Your task to perform on an android device: turn on sleep mode Image 0: 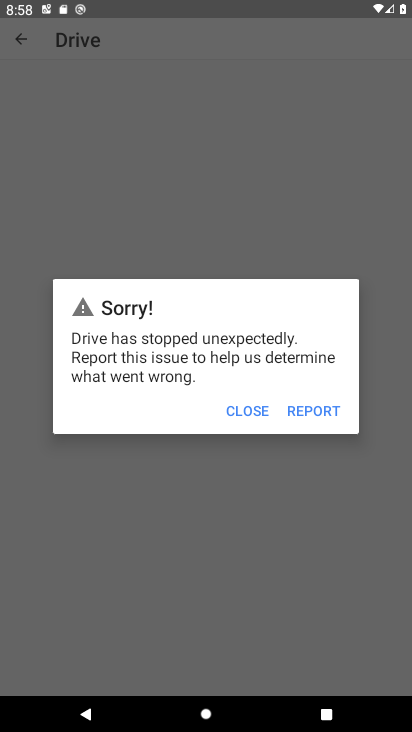
Step 0: press home button
Your task to perform on an android device: turn on sleep mode Image 1: 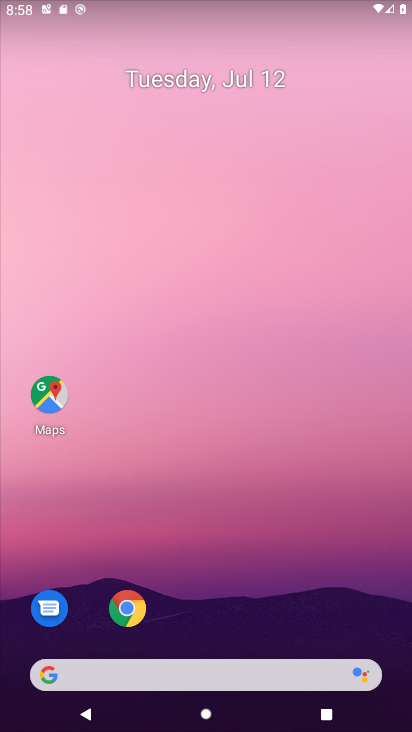
Step 1: drag from (184, 672) to (323, 14)
Your task to perform on an android device: turn on sleep mode Image 2: 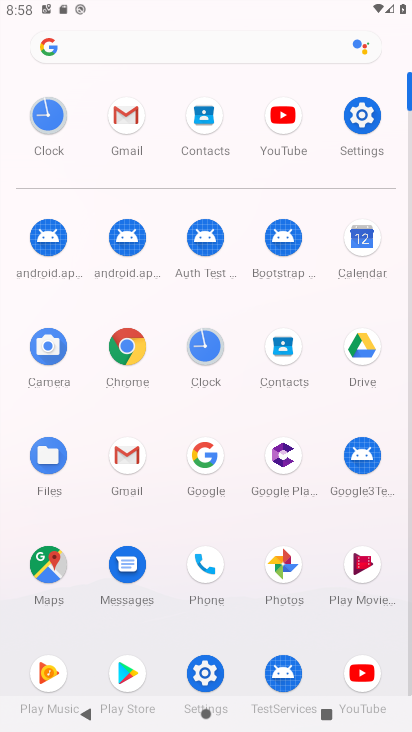
Step 2: click (357, 115)
Your task to perform on an android device: turn on sleep mode Image 3: 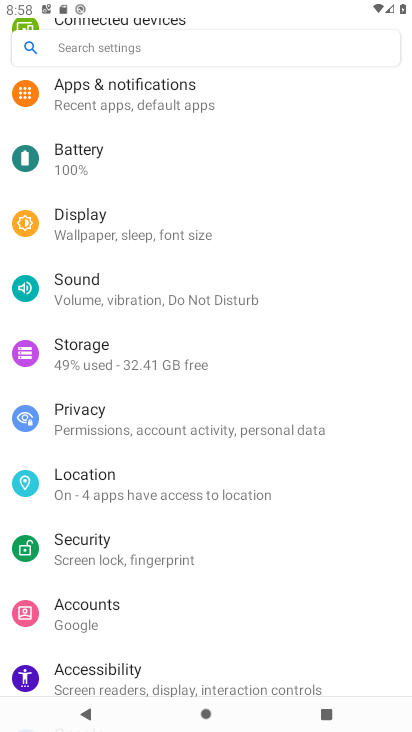
Step 3: click (108, 228)
Your task to perform on an android device: turn on sleep mode Image 4: 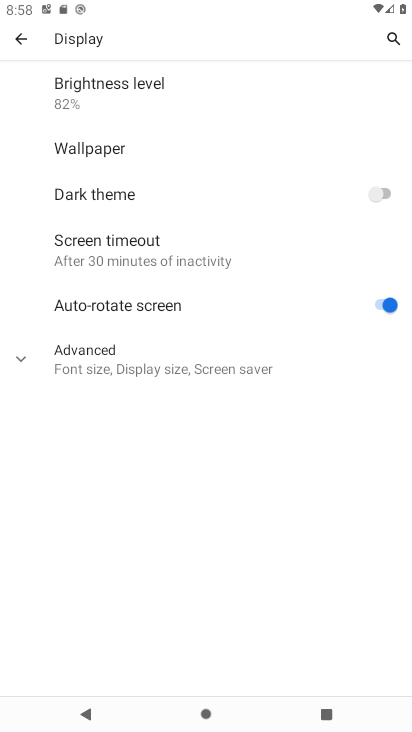
Step 4: click (69, 357)
Your task to perform on an android device: turn on sleep mode Image 5: 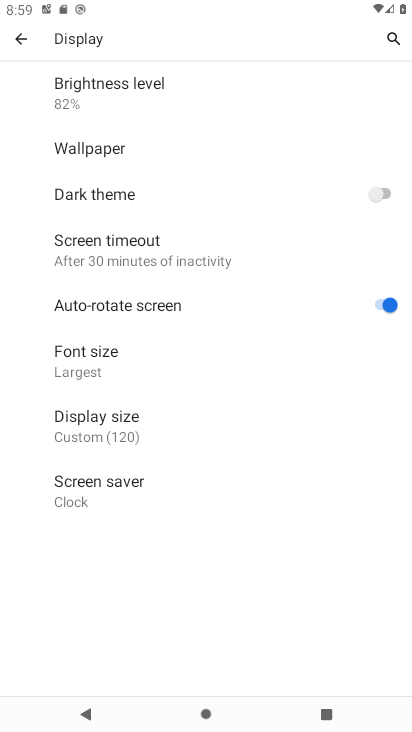
Step 5: task complete